Your task to perform on an android device: Set the phone to "Do not disturb". Image 0: 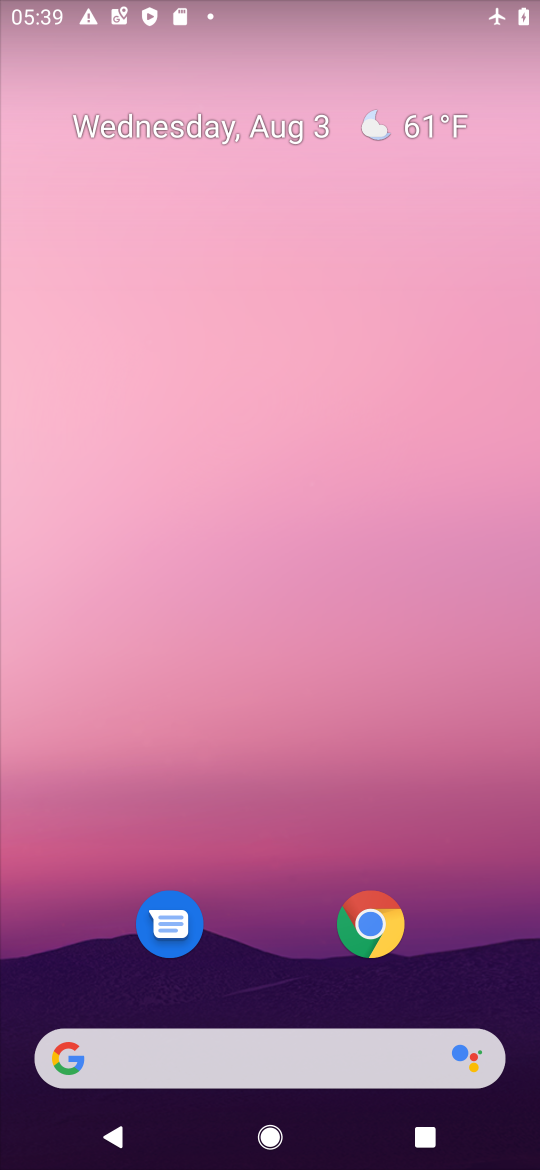
Step 0: drag from (240, 482) to (224, 194)
Your task to perform on an android device: Set the phone to "Do not disturb". Image 1: 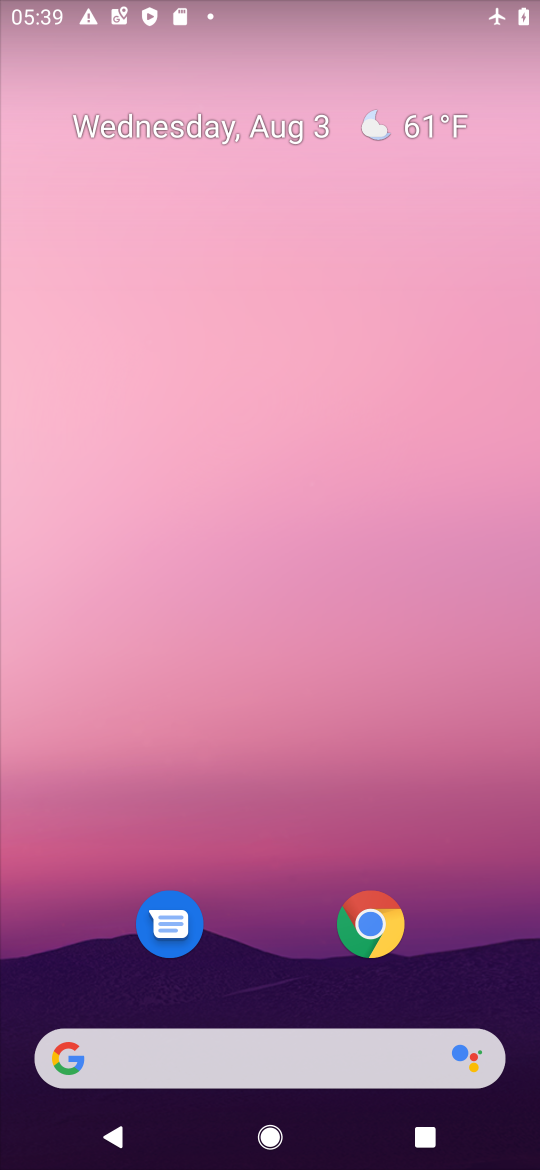
Step 1: drag from (258, 574) to (258, 164)
Your task to perform on an android device: Set the phone to "Do not disturb". Image 2: 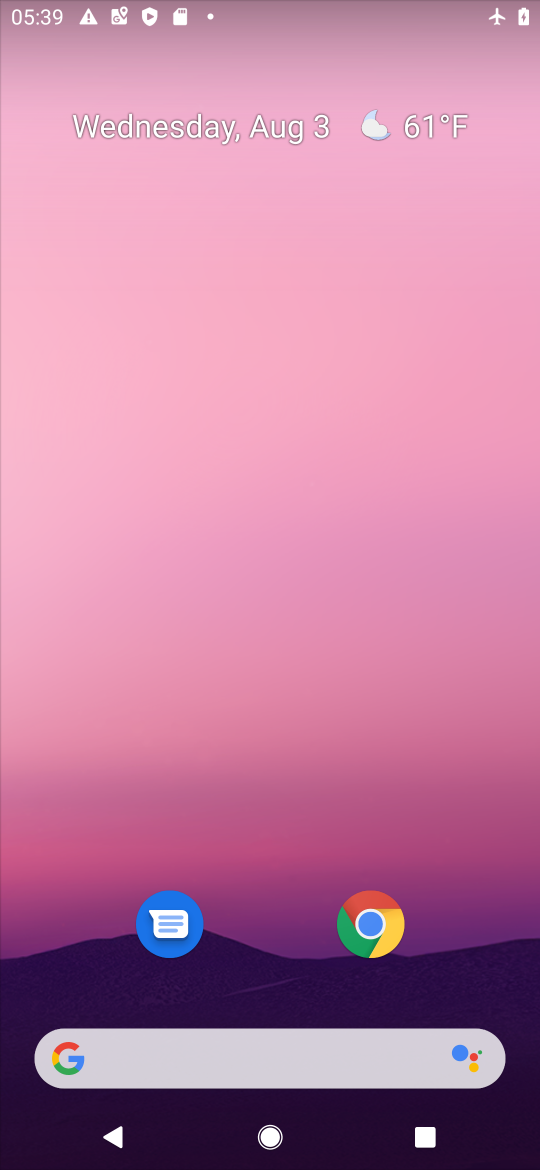
Step 2: drag from (270, 840) to (270, 134)
Your task to perform on an android device: Set the phone to "Do not disturb". Image 3: 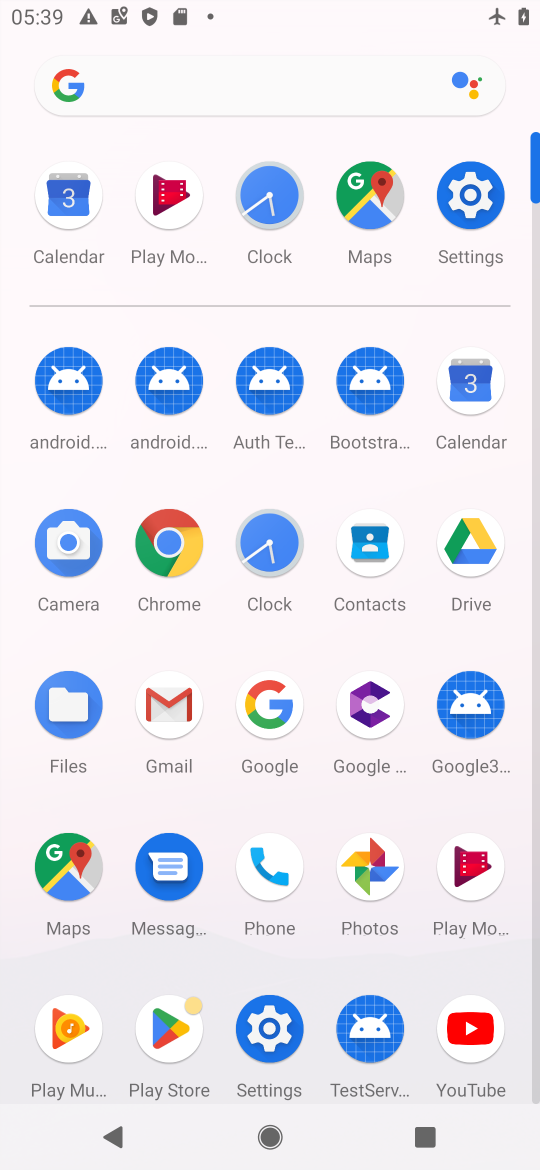
Step 3: click (507, 168)
Your task to perform on an android device: Set the phone to "Do not disturb". Image 4: 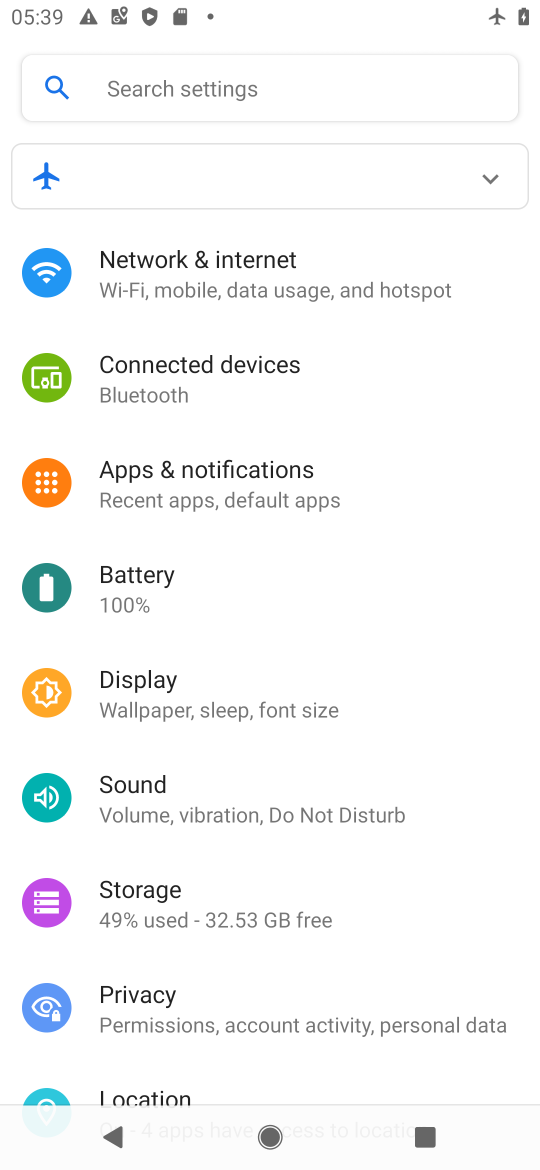
Step 4: click (182, 838)
Your task to perform on an android device: Set the phone to "Do not disturb". Image 5: 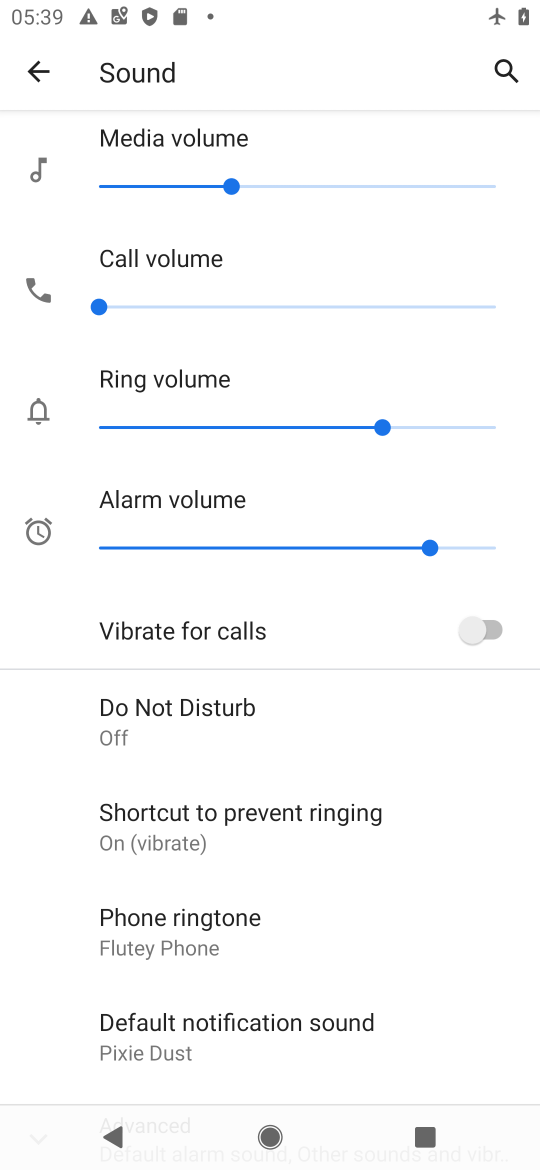
Step 5: click (224, 716)
Your task to perform on an android device: Set the phone to "Do not disturb". Image 6: 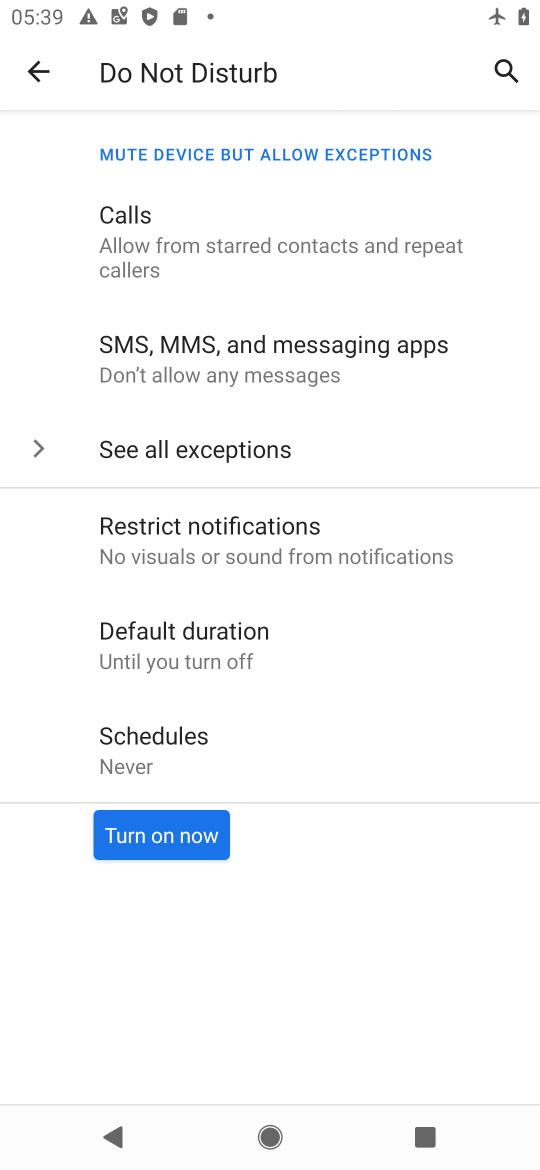
Step 6: click (169, 836)
Your task to perform on an android device: Set the phone to "Do not disturb". Image 7: 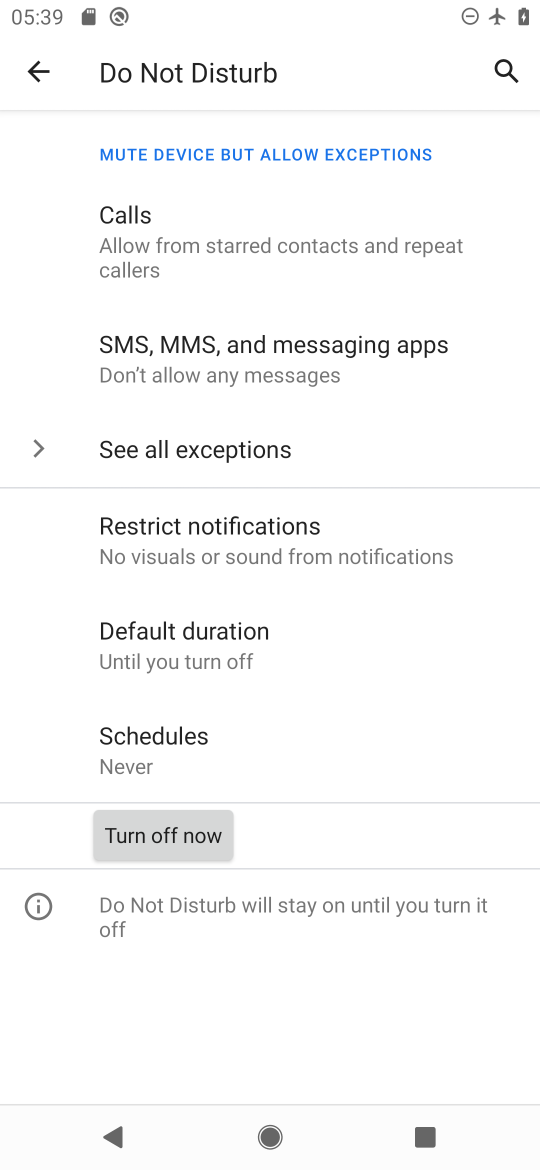
Step 7: task complete